Your task to perform on an android device: Open Reddit.com Image 0: 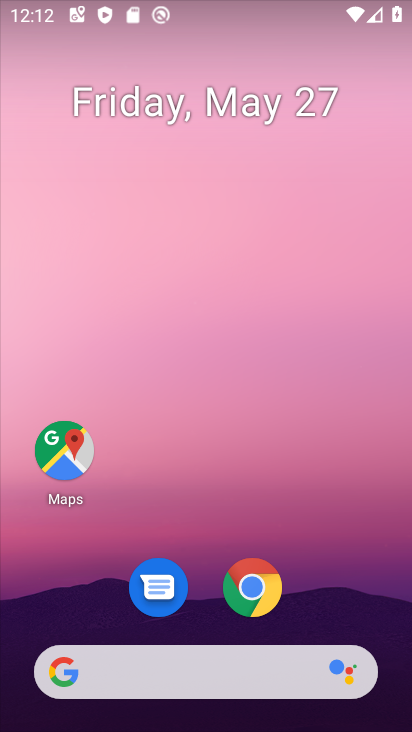
Step 0: click (274, 599)
Your task to perform on an android device: Open Reddit.com Image 1: 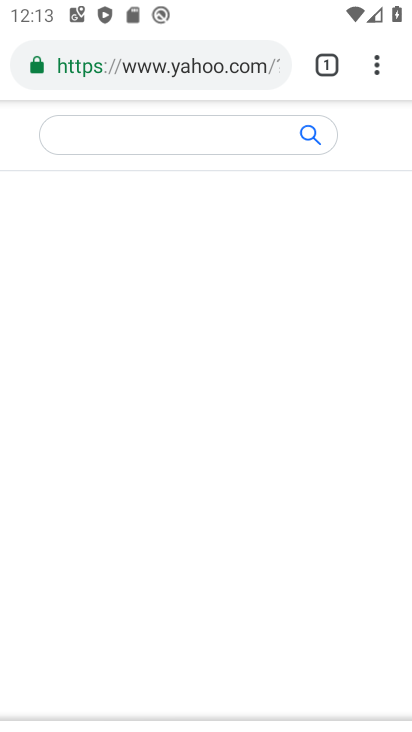
Step 1: click (329, 62)
Your task to perform on an android device: Open Reddit.com Image 2: 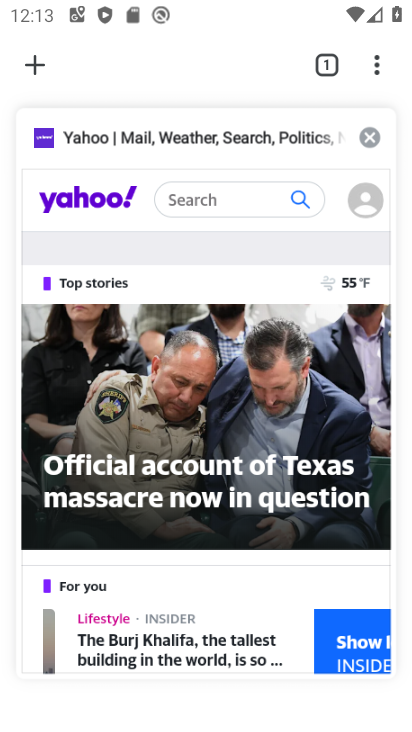
Step 2: click (371, 139)
Your task to perform on an android device: Open Reddit.com Image 3: 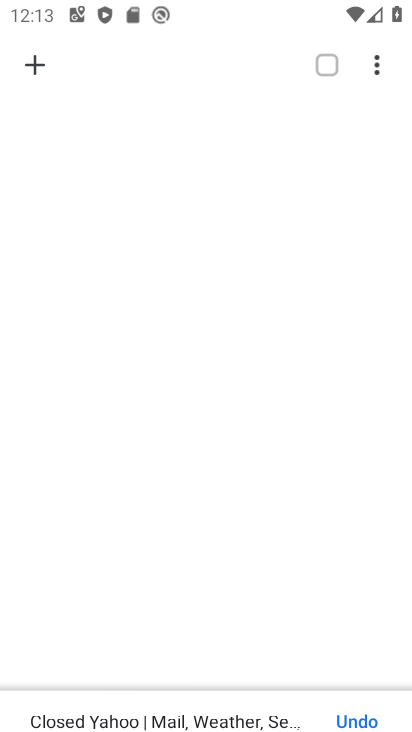
Step 3: click (33, 67)
Your task to perform on an android device: Open Reddit.com Image 4: 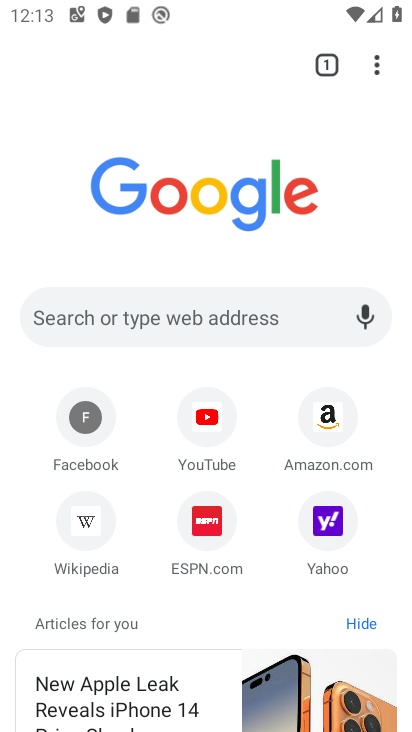
Step 4: click (203, 327)
Your task to perform on an android device: Open Reddit.com Image 5: 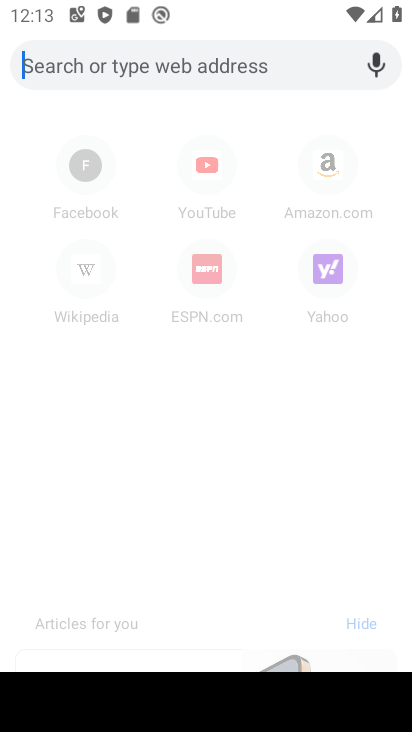
Step 5: type "reddit.com"
Your task to perform on an android device: Open Reddit.com Image 6: 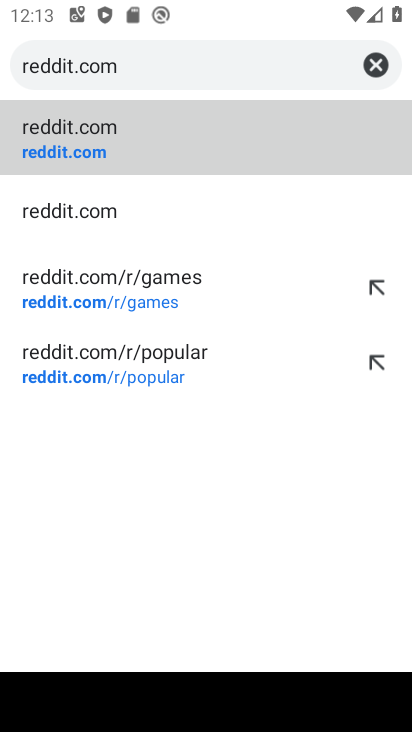
Step 6: click (81, 157)
Your task to perform on an android device: Open Reddit.com Image 7: 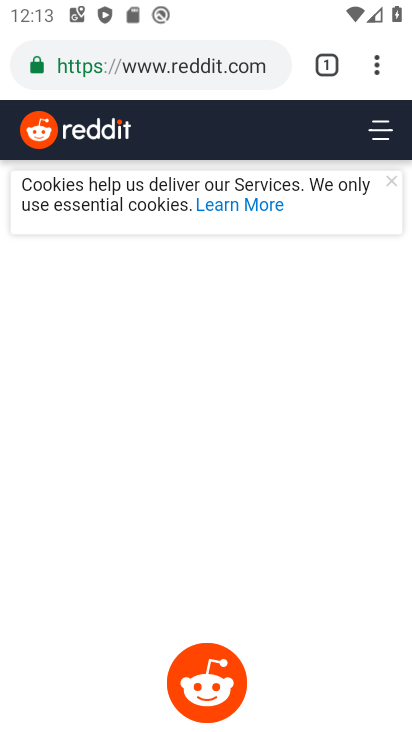
Step 7: task complete